Your task to perform on an android device: change notifications settings Image 0: 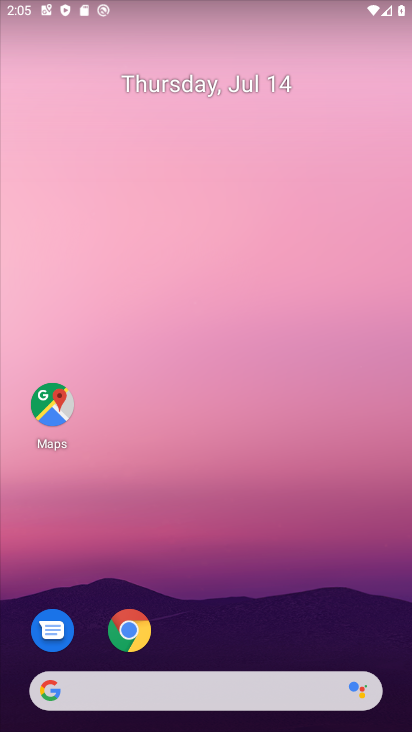
Step 0: drag from (204, 646) to (250, 199)
Your task to perform on an android device: change notifications settings Image 1: 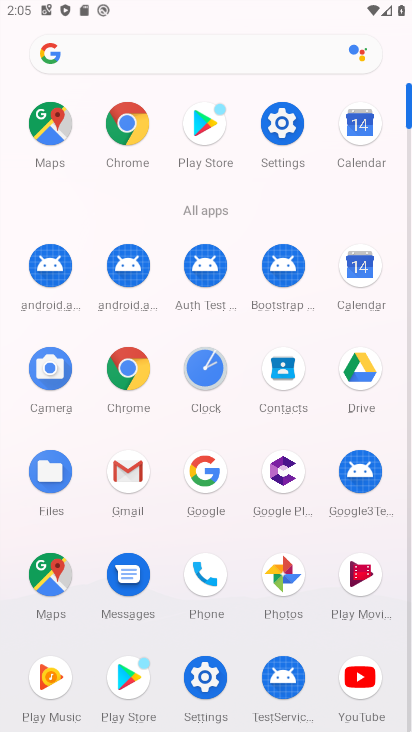
Step 1: click (280, 115)
Your task to perform on an android device: change notifications settings Image 2: 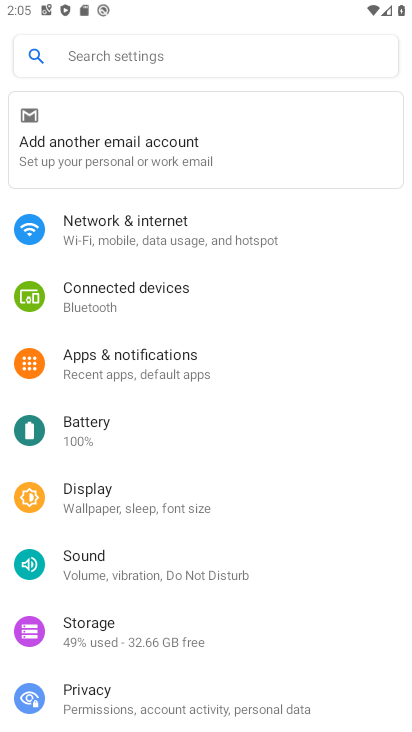
Step 2: click (174, 344)
Your task to perform on an android device: change notifications settings Image 3: 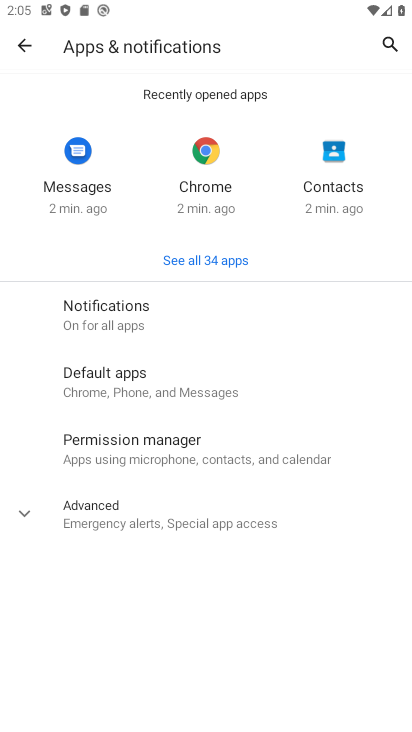
Step 3: click (155, 311)
Your task to perform on an android device: change notifications settings Image 4: 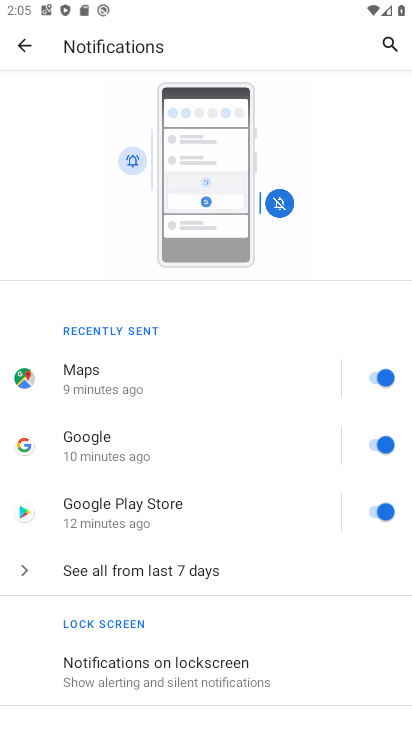
Step 4: task complete